Your task to perform on an android device: allow notifications from all sites in the chrome app Image 0: 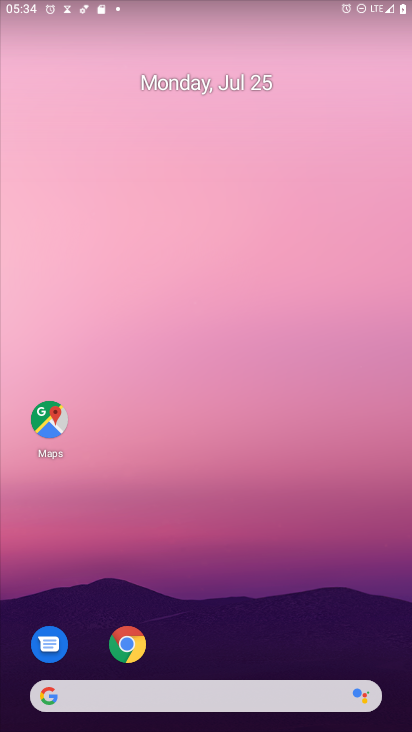
Step 0: drag from (270, 657) to (241, 132)
Your task to perform on an android device: allow notifications from all sites in the chrome app Image 1: 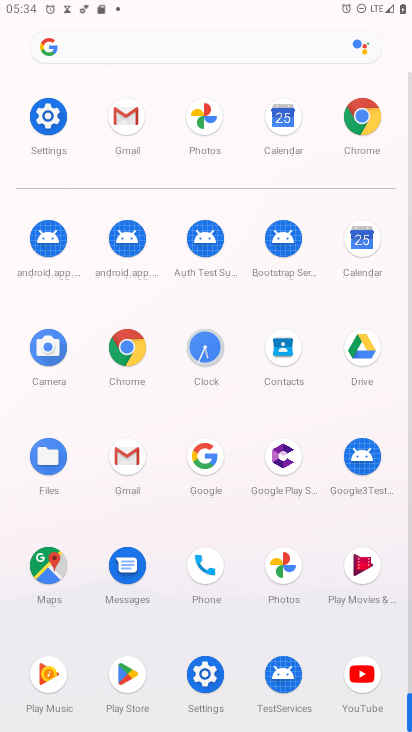
Step 1: click (360, 115)
Your task to perform on an android device: allow notifications from all sites in the chrome app Image 2: 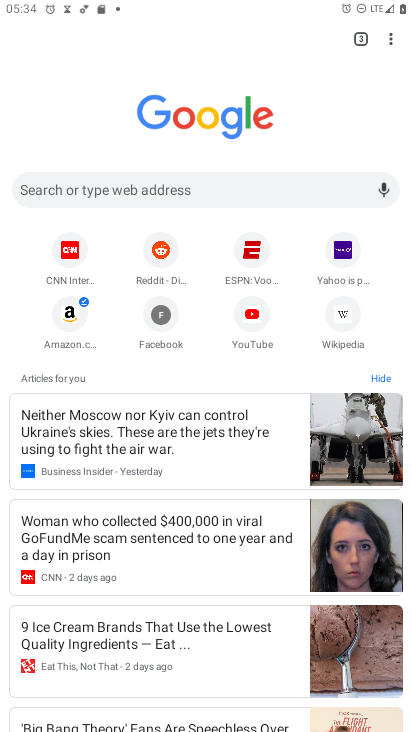
Step 2: drag from (390, 42) to (259, 325)
Your task to perform on an android device: allow notifications from all sites in the chrome app Image 3: 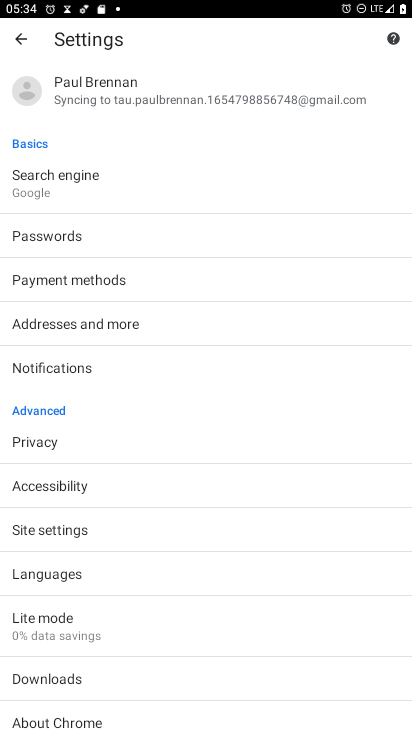
Step 3: click (53, 533)
Your task to perform on an android device: allow notifications from all sites in the chrome app Image 4: 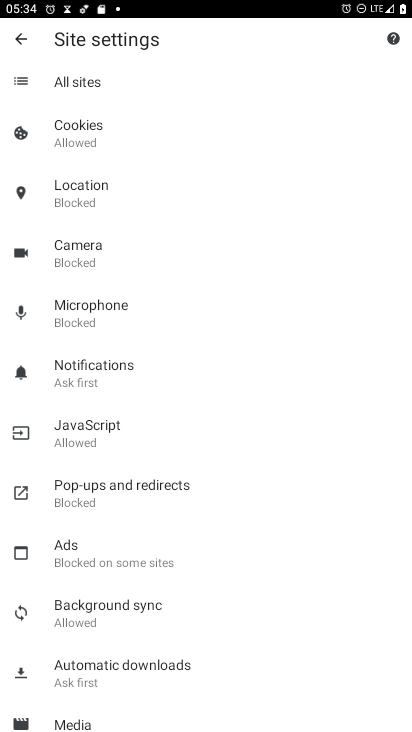
Step 4: click (67, 376)
Your task to perform on an android device: allow notifications from all sites in the chrome app Image 5: 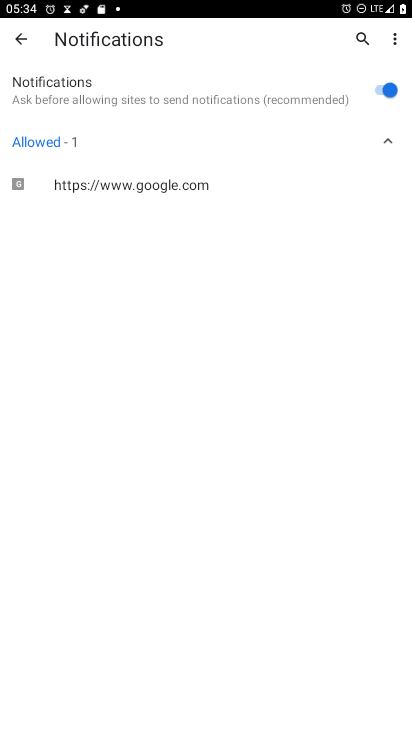
Step 5: task complete